Your task to perform on an android device: change text size in settings app Image 0: 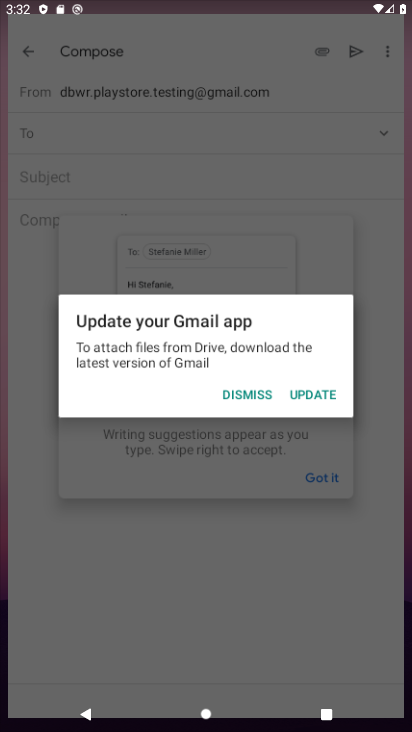
Step 0: drag from (159, 659) to (238, 195)
Your task to perform on an android device: change text size in settings app Image 1: 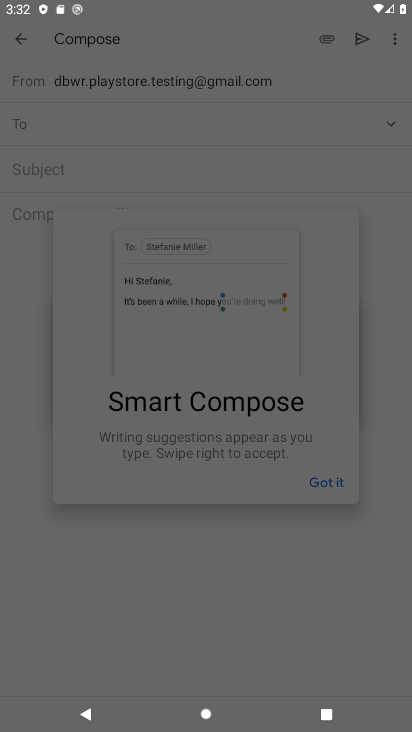
Step 1: press home button
Your task to perform on an android device: change text size in settings app Image 2: 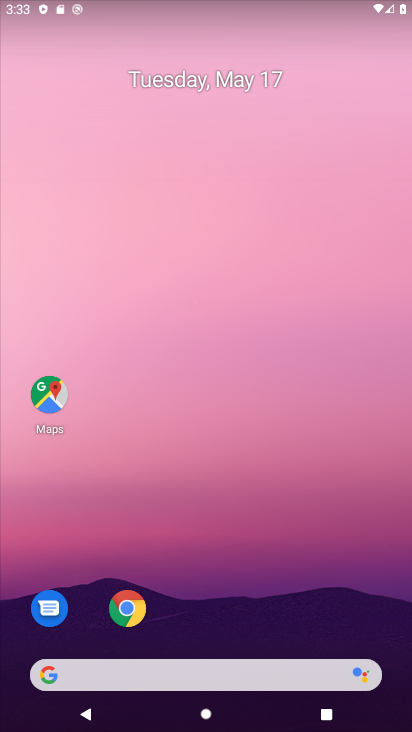
Step 2: drag from (175, 647) to (174, 200)
Your task to perform on an android device: change text size in settings app Image 3: 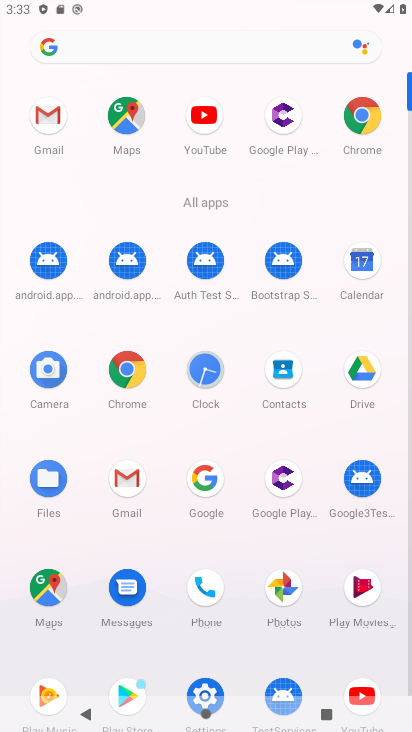
Step 3: click (264, 334)
Your task to perform on an android device: change text size in settings app Image 4: 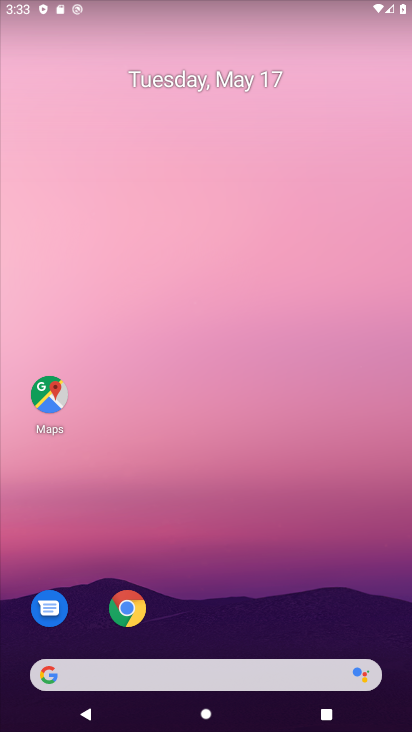
Step 4: drag from (195, 516) to (180, 290)
Your task to perform on an android device: change text size in settings app Image 5: 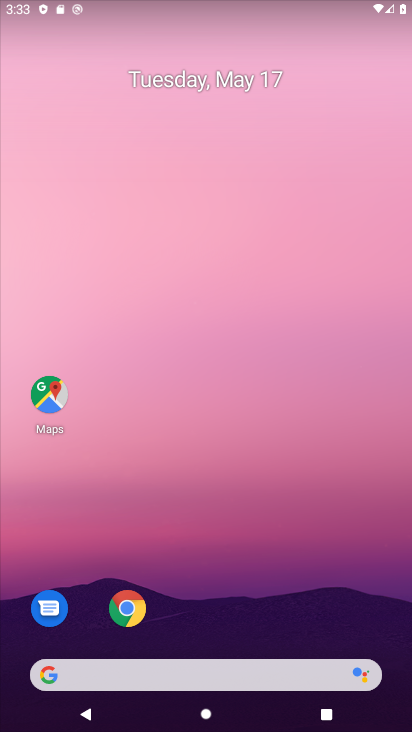
Step 5: click (259, 196)
Your task to perform on an android device: change text size in settings app Image 6: 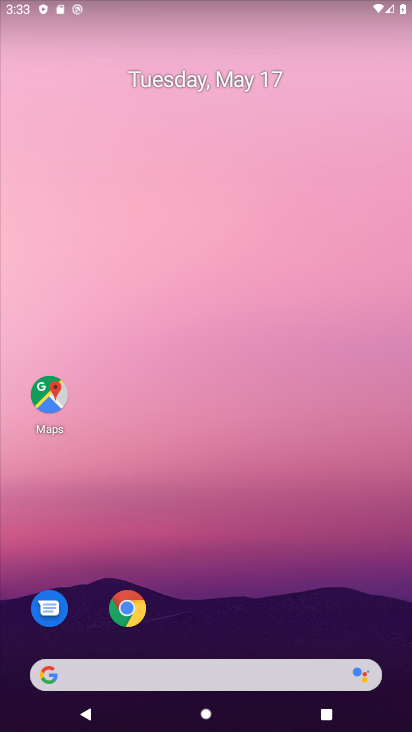
Step 6: drag from (236, 602) to (267, 199)
Your task to perform on an android device: change text size in settings app Image 7: 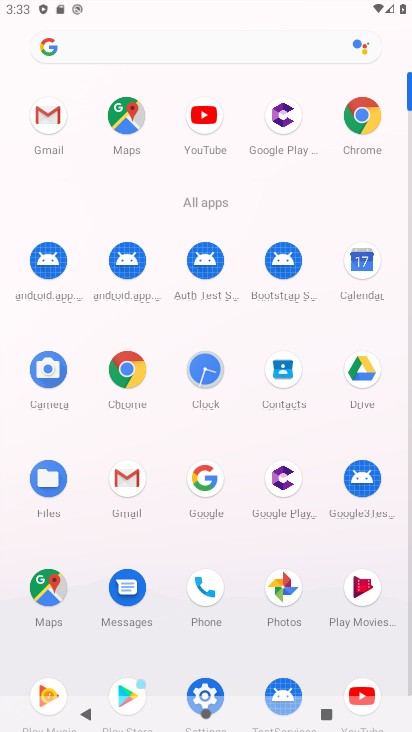
Step 7: click (207, 684)
Your task to perform on an android device: change text size in settings app Image 8: 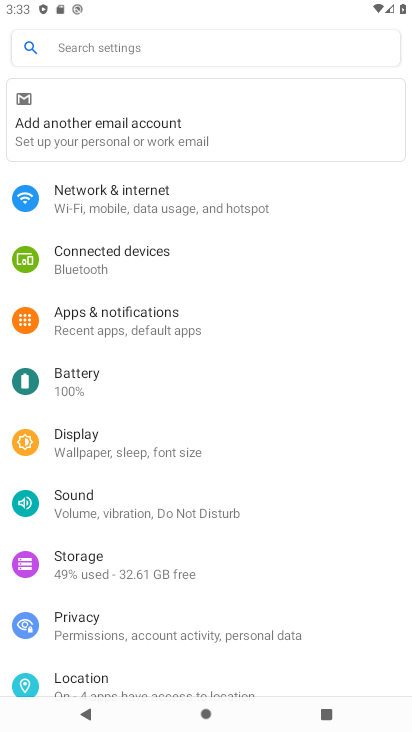
Step 8: drag from (115, 685) to (120, 303)
Your task to perform on an android device: change text size in settings app Image 9: 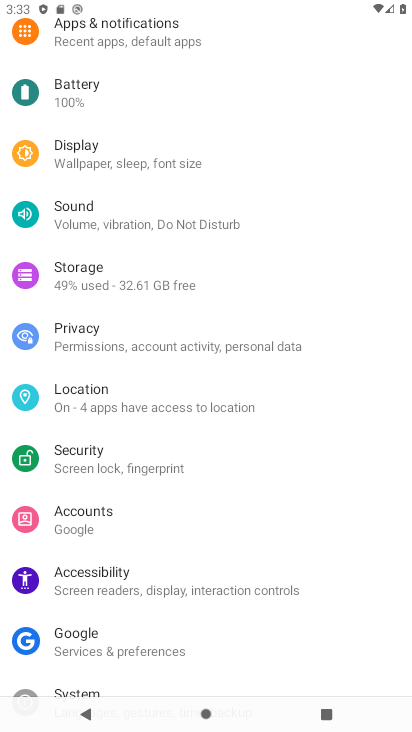
Step 9: click (93, 604)
Your task to perform on an android device: change text size in settings app Image 10: 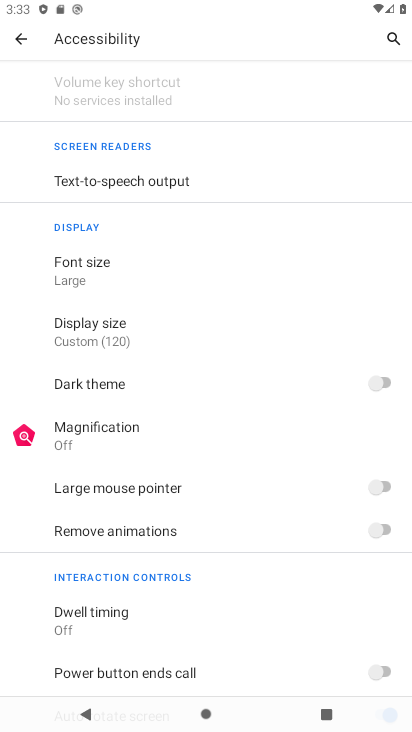
Step 10: click (96, 590)
Your task to perform on an android device: change text size in settings app Image 11: 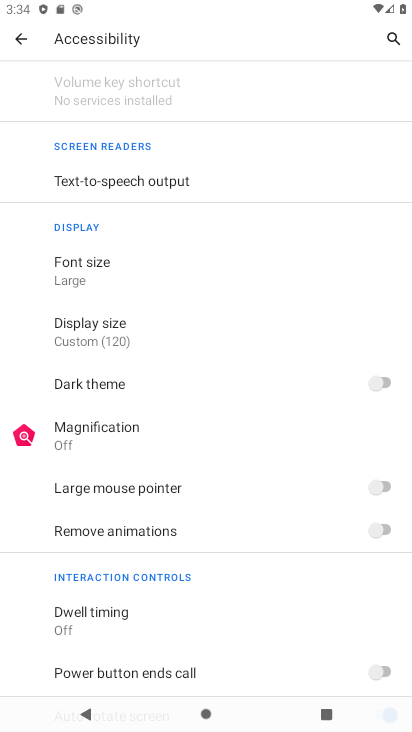
Step 11: click (70, 276)
Your task to perform on an android device: change text size in settings app Image 12: 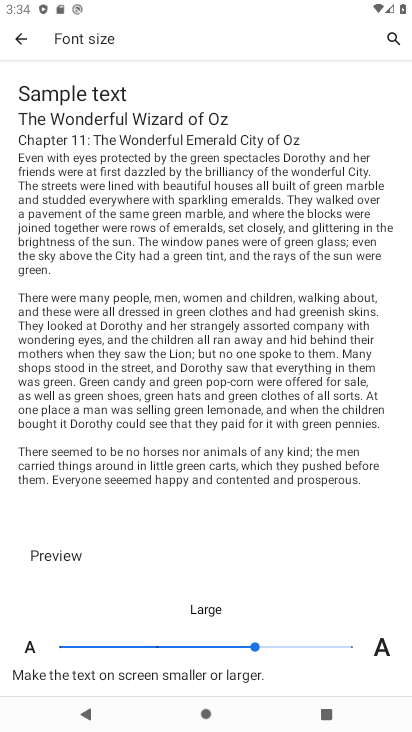
Step 12: click (181, 643)
Your task to perform on an android device: change text size in settings app Image 13: 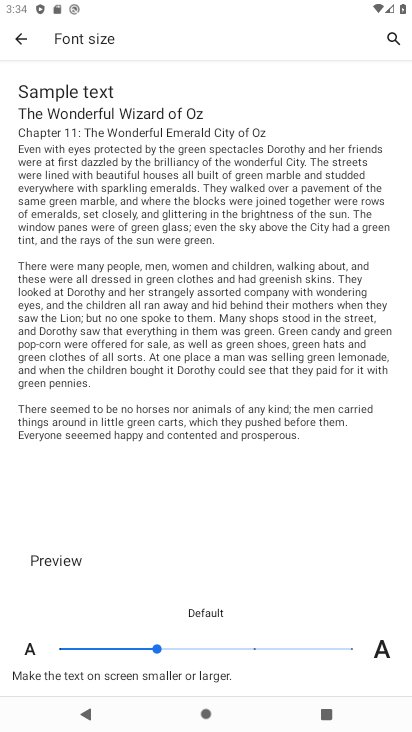
Step 13: task complete